Your task to perform on an android device: turn off notifications in google photos Image 0: 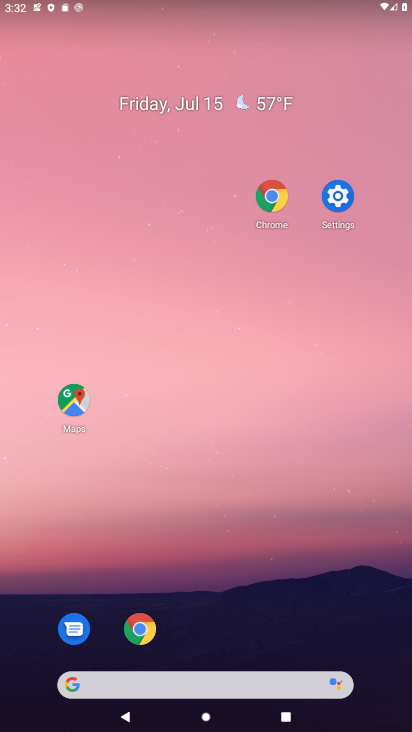
Step 0: drag from (249, 698) to (194, 38)
Your task to perform on an android device: turn off notifications in google photos Image 1: 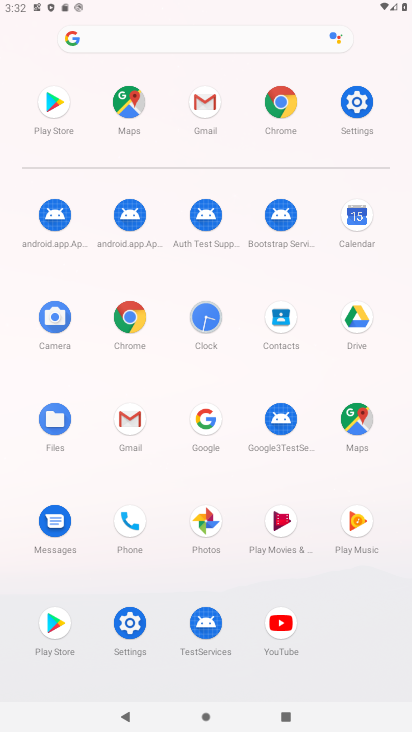
Step 1: drag from (237, 456) to (244, 56)
Your task to perform on an android device: turn off notifications in google photos Image 2: 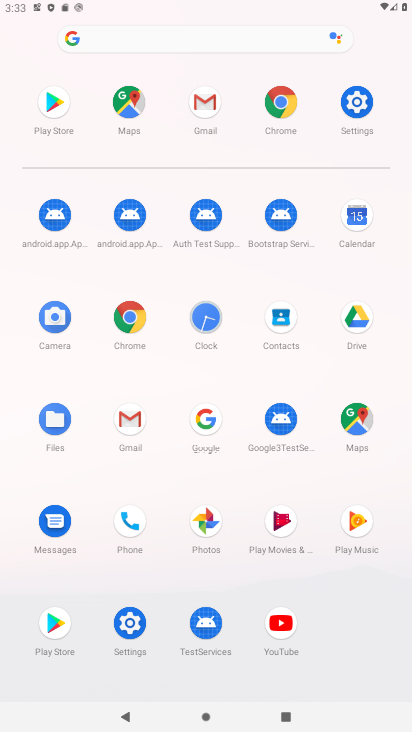
Step 2: click (205, 519)
Your task to perform on an android device: turn off notifications in google photos Image 3: 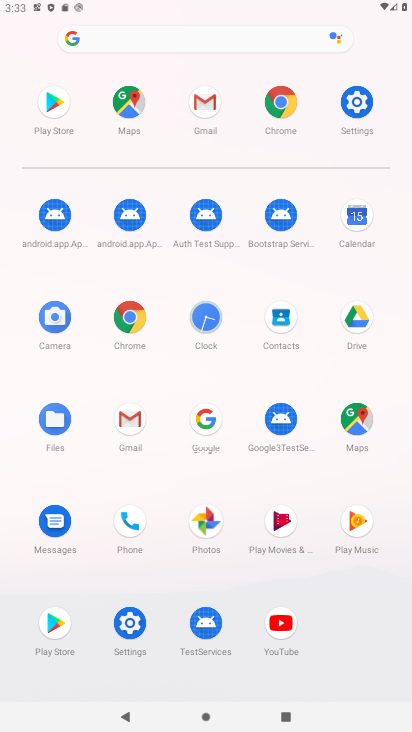
Step 3: click (213, 518)
Your task to perform on an android device: turn off notifications in google photos Image 4: 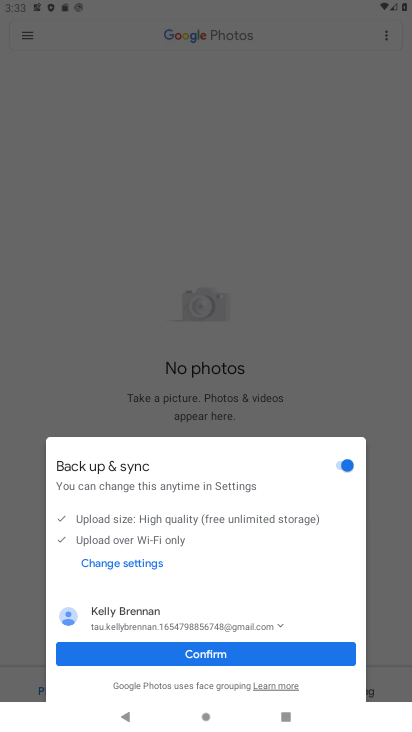
Step 4: click (235, 647)
Your task to perform on an android device: turn off notifications in google photos Image 5: 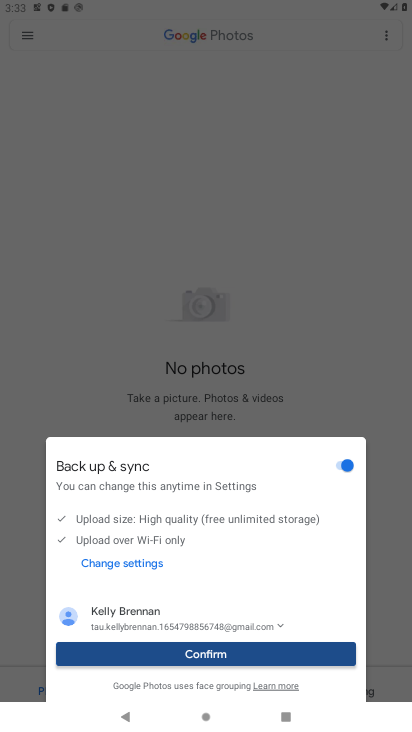
Step 5: click (235, 647)
Your task to perform on an android device: turn off notifications in google photos Image 6: 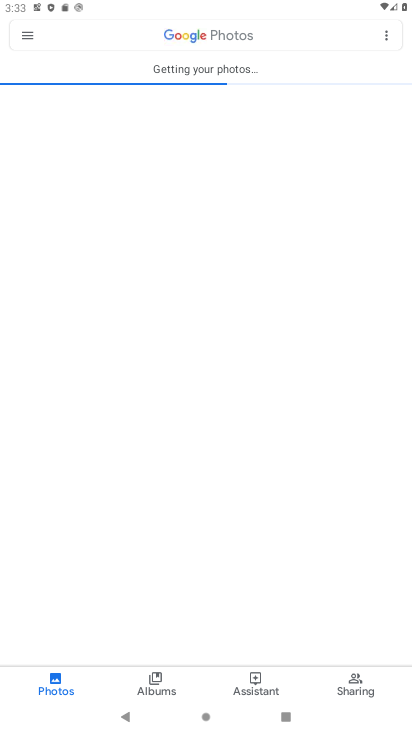
Step 6: click (236, 658)
Your task to perform on an android device: turn off notifications in google photos Image 7: 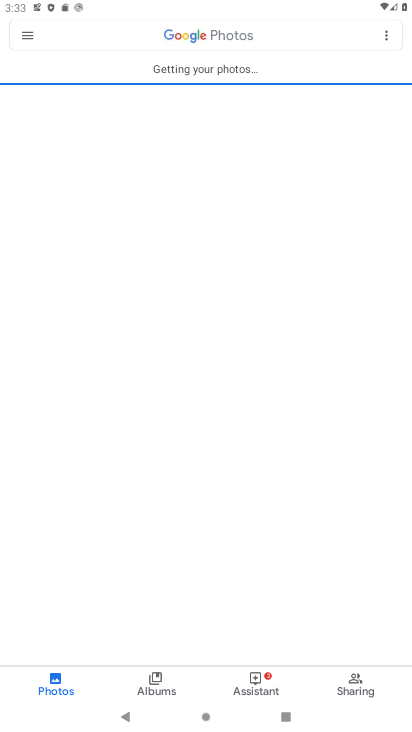
Step 7: click (236, 658)
Your task to perform on an android device: turn off notifications in google photos Image 8: 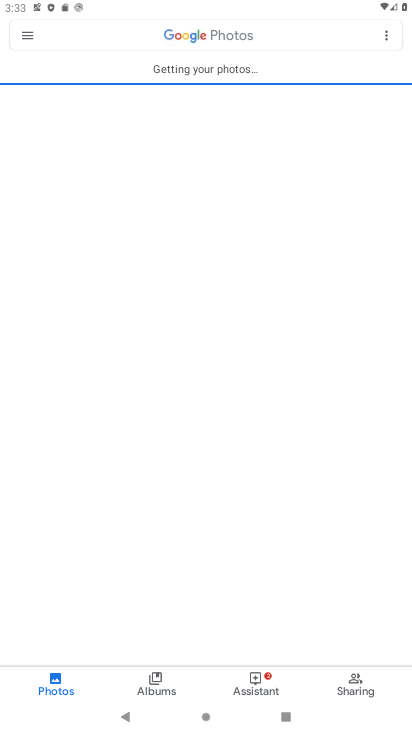
Step 8: click (238, 655)
Your task to perform on an android device: turn off notifications in google photos Image 9: 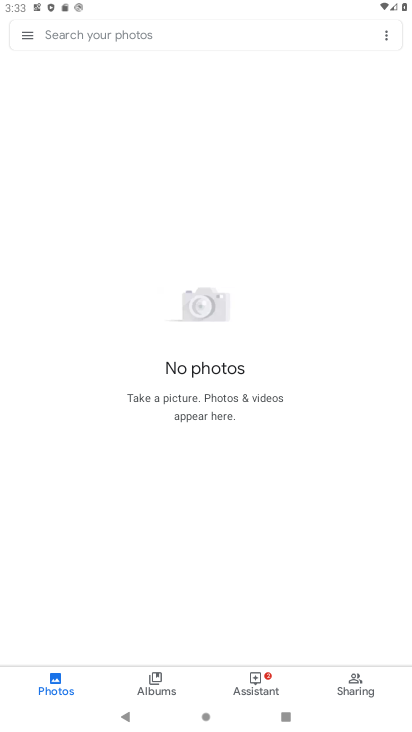
Step 9: drag from (35, 37) to (46, 110)
Your task to perform on an android device: turn off notifications in google photos Image 10: 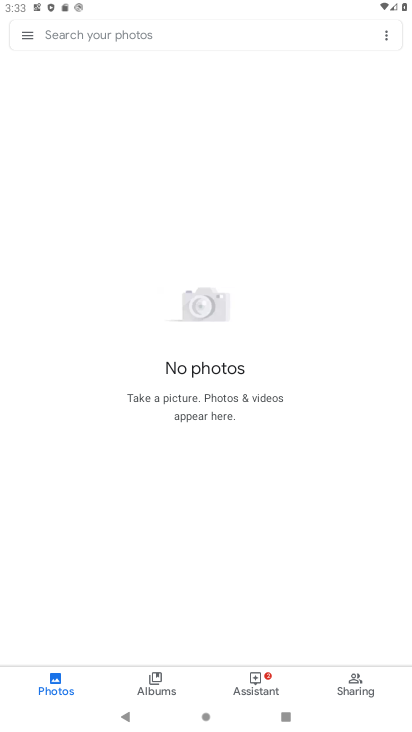
Step 10: click (32, 38)
Your task to perform on an android device: turn off notifications in google photos Image 11: 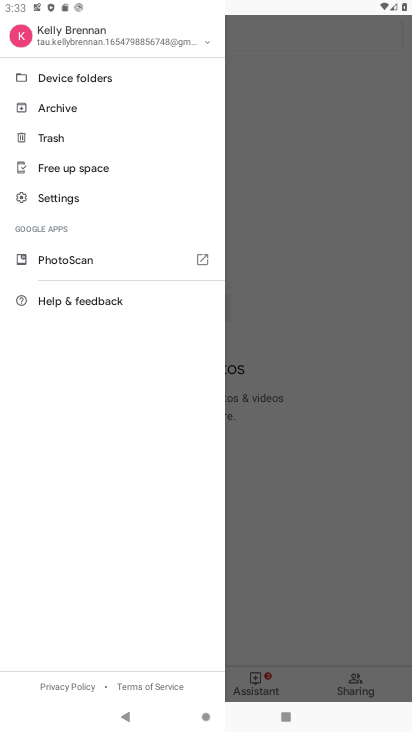
Step 11: click (51, 195)
Your task to perform on an android device: turn off notifications in google photos Image 12: 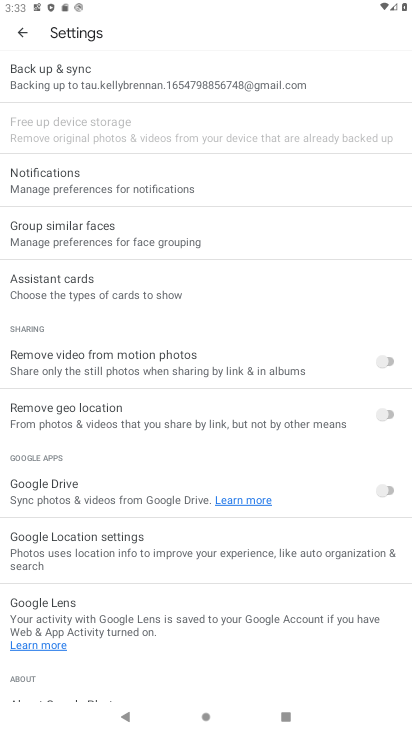
Step 12: click (31, 67)
Your task to perform on an android device: turn off notifications in google photos Image 13: 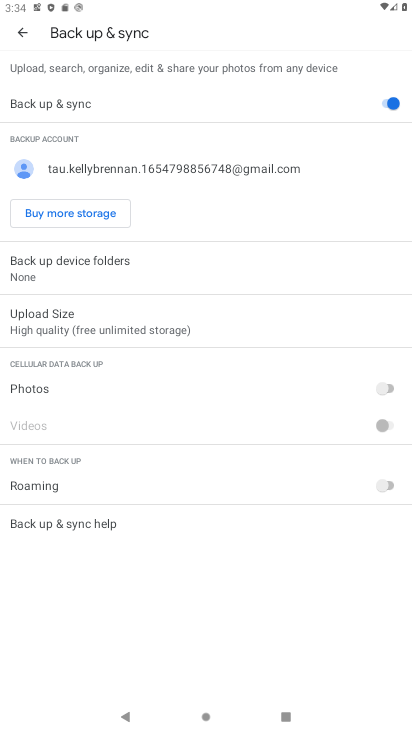
Step 13: click (18, 28)
Your task to perform on an android device: turn off notifications in google photos Image 14: 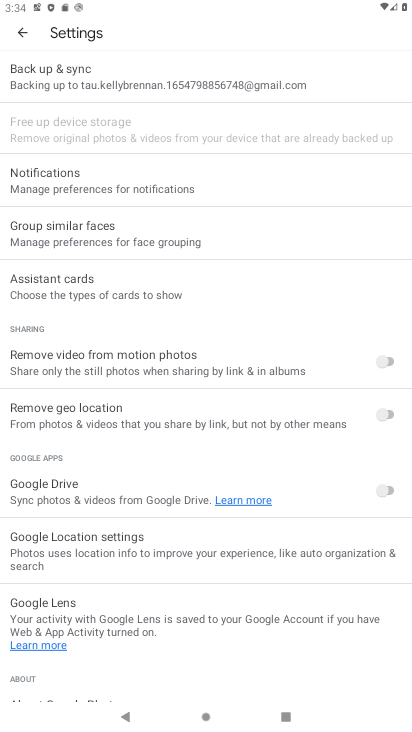
Step 14: click (70, 181)
Your task to perform on an android device: turn off notifications in google photos Image 15: 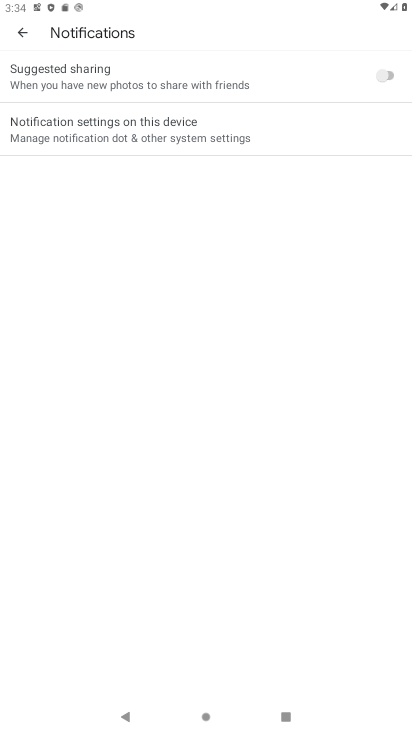
Step 15: click (384, 73)
Your task to perform on an android device: turn off notifications in google photos Image 16: 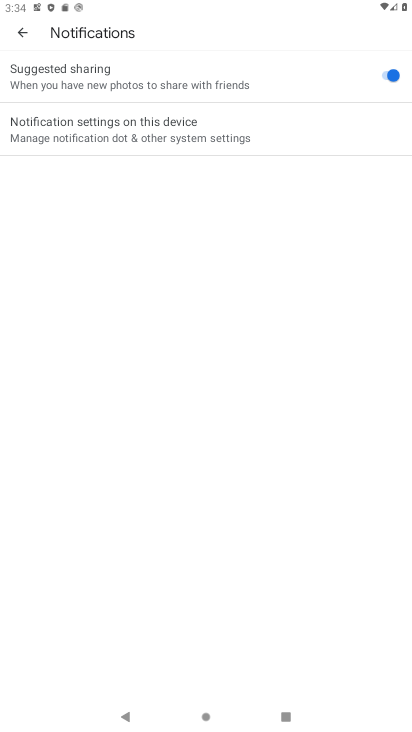
Step 16: click (384, 73)
Your task to perform on an android device: turn off notifications in google photos Image 17: 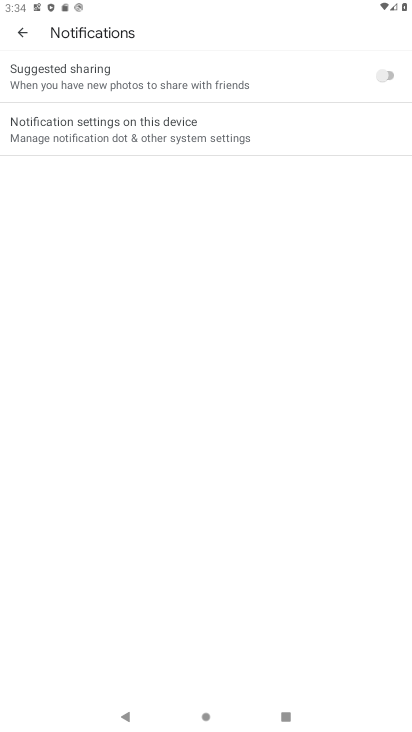
Step 17: task complete